Your task to perform on an android device: allow cookies in the chrome app Image 0: 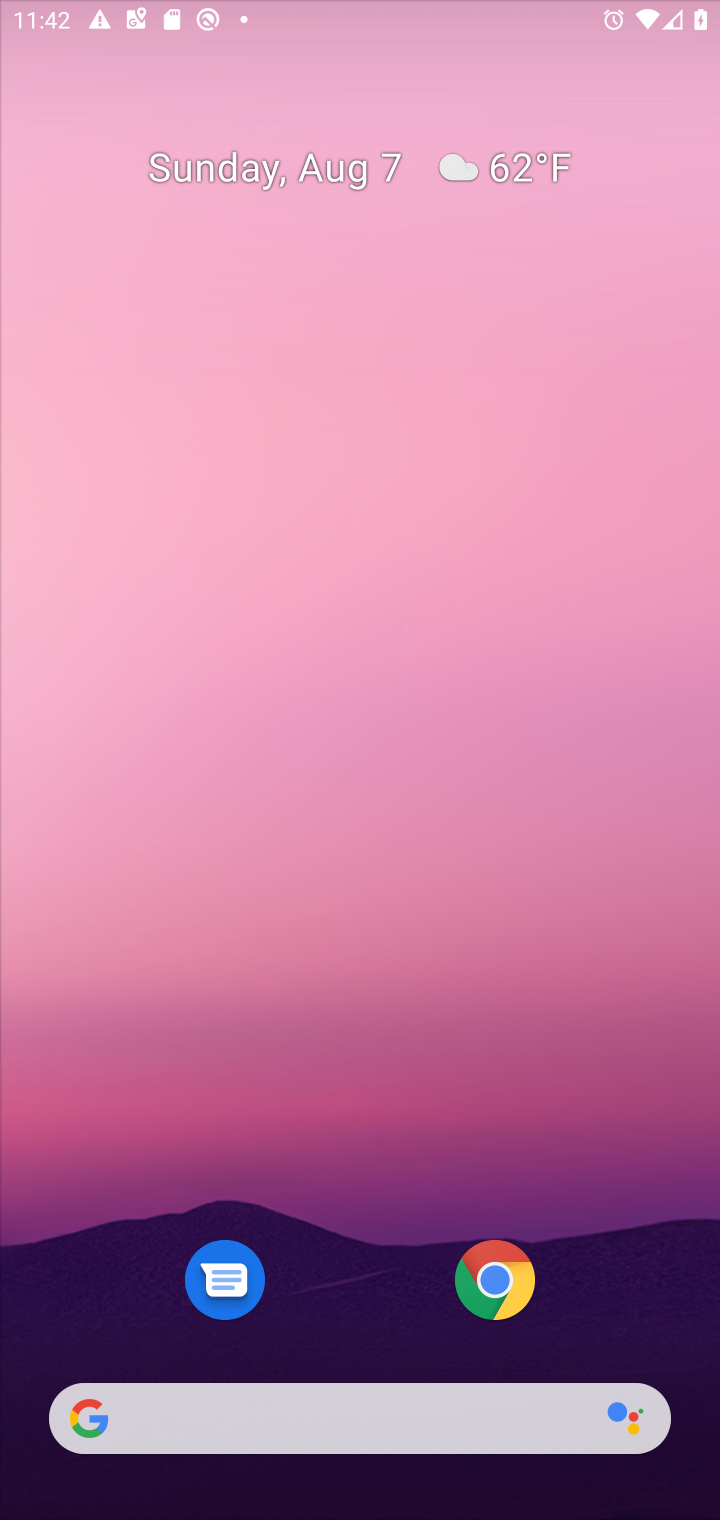
Step 0: press home button
Your task to perform on an android device: allow cookies in the chrome app Image 1: 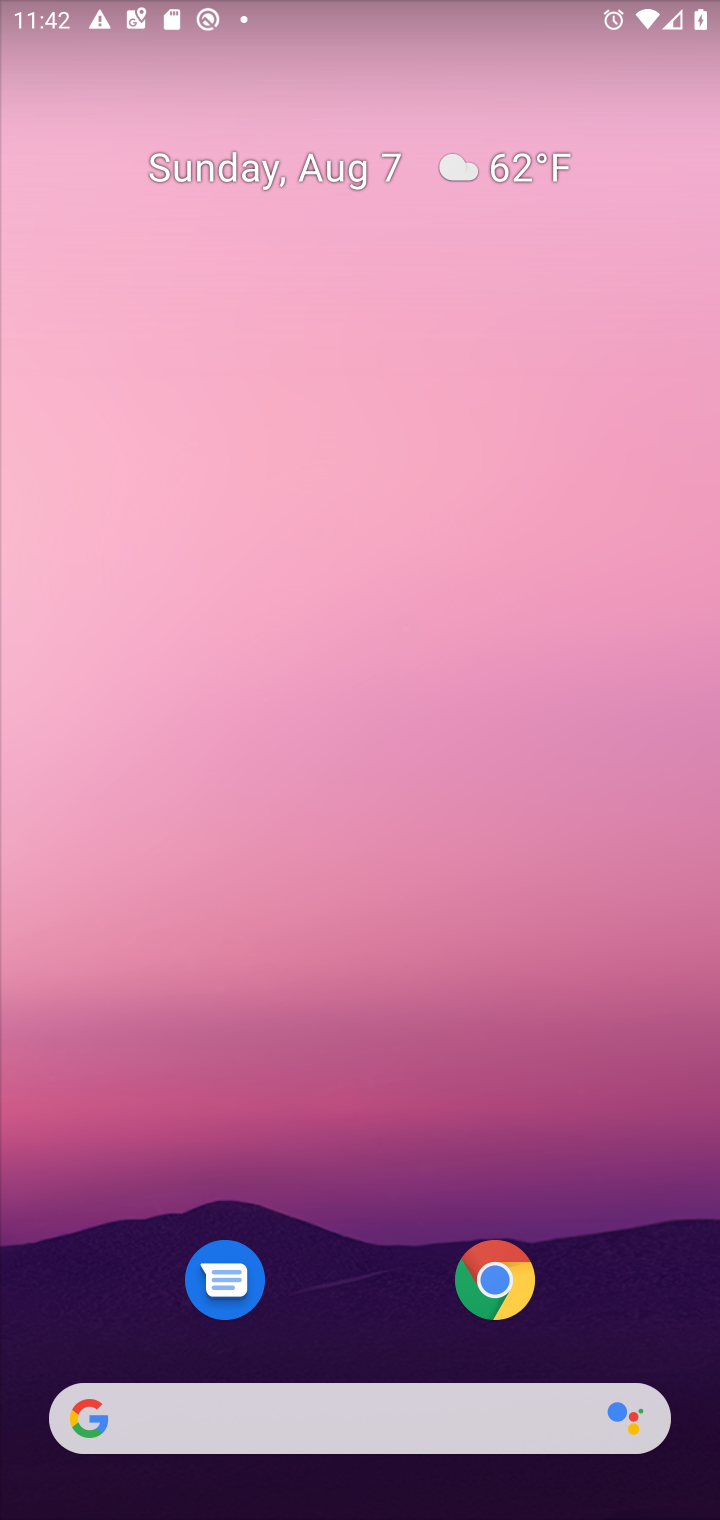
Step 1: click (498, 1287)
Your task to perform on an android device: allow cookies in the chrome app Image 2: 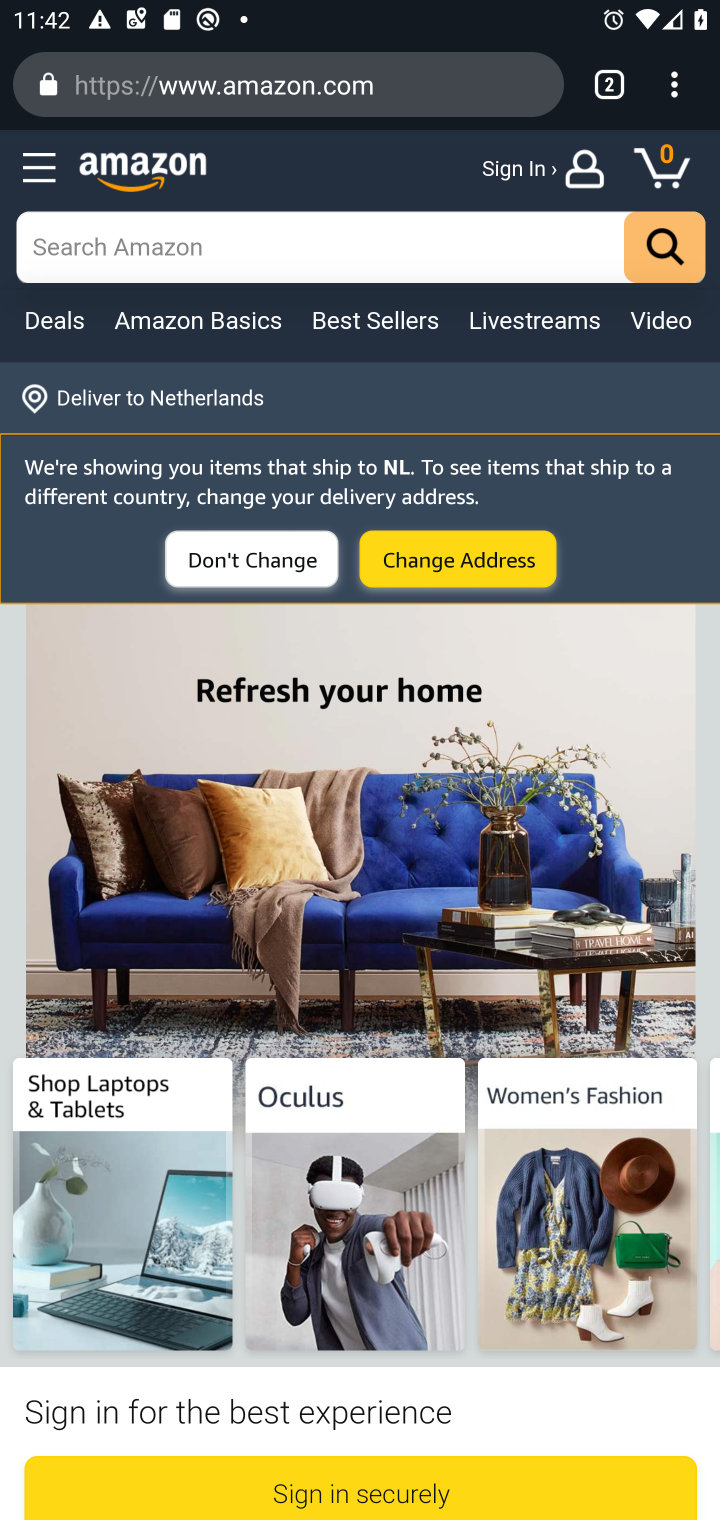
Step 2: click (680, 105)
Your task to perform on an android device: allow cookies in the chrome app Image 3: 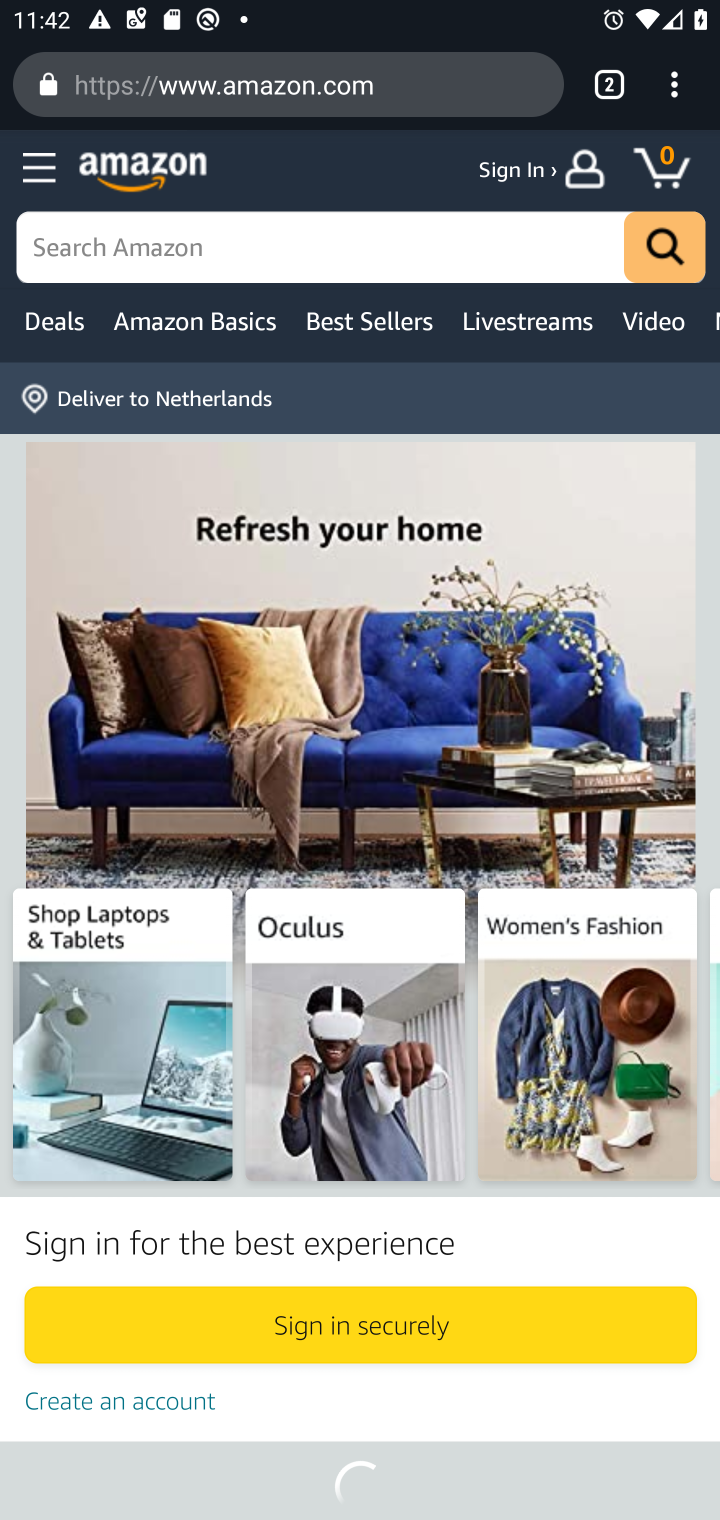
Step 3: drag from (683, 98) to (548, 1097)
Your task to perform on an android device: allow cookies in the chrome app Image 4: 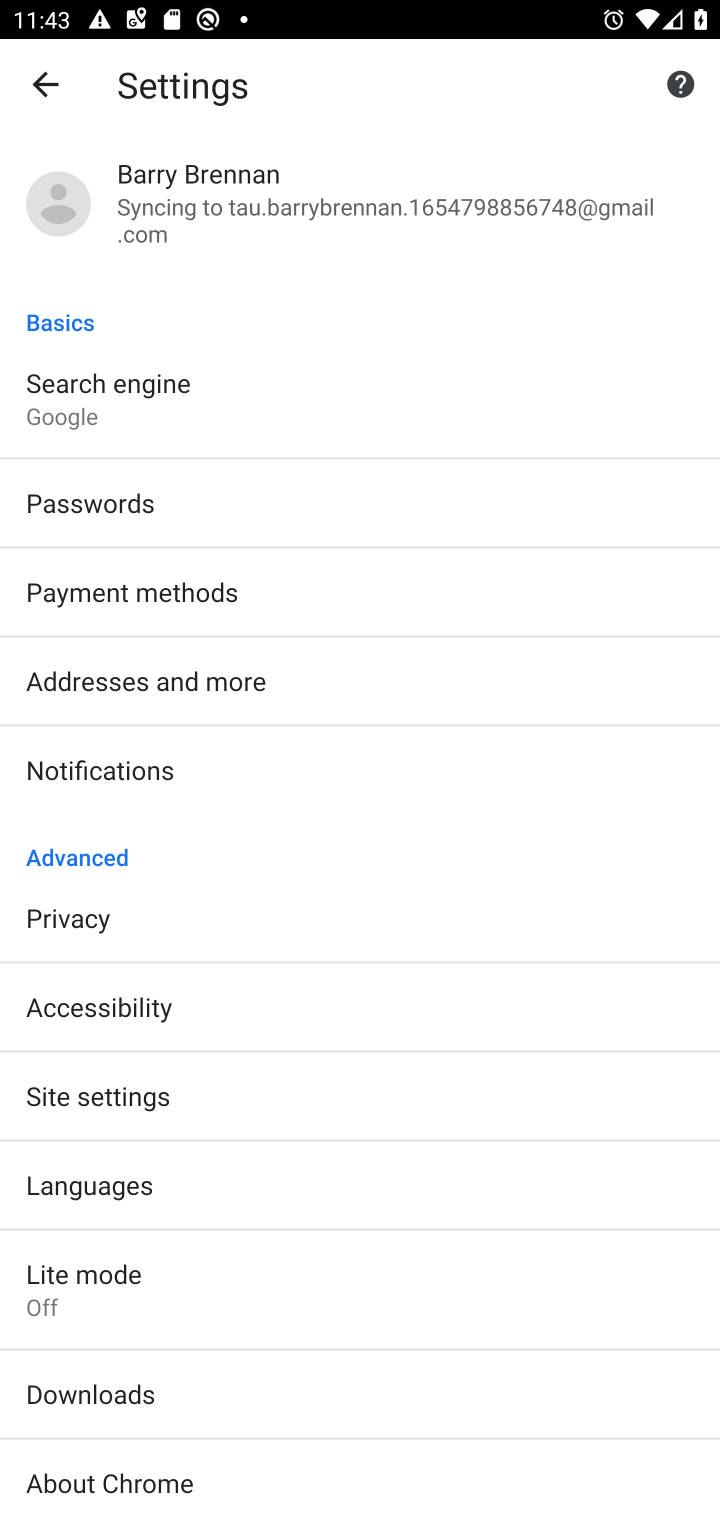
Step 4: click (116, 1103)
Your task to perform on an android device: allow cookies in the chrome app Image 5: 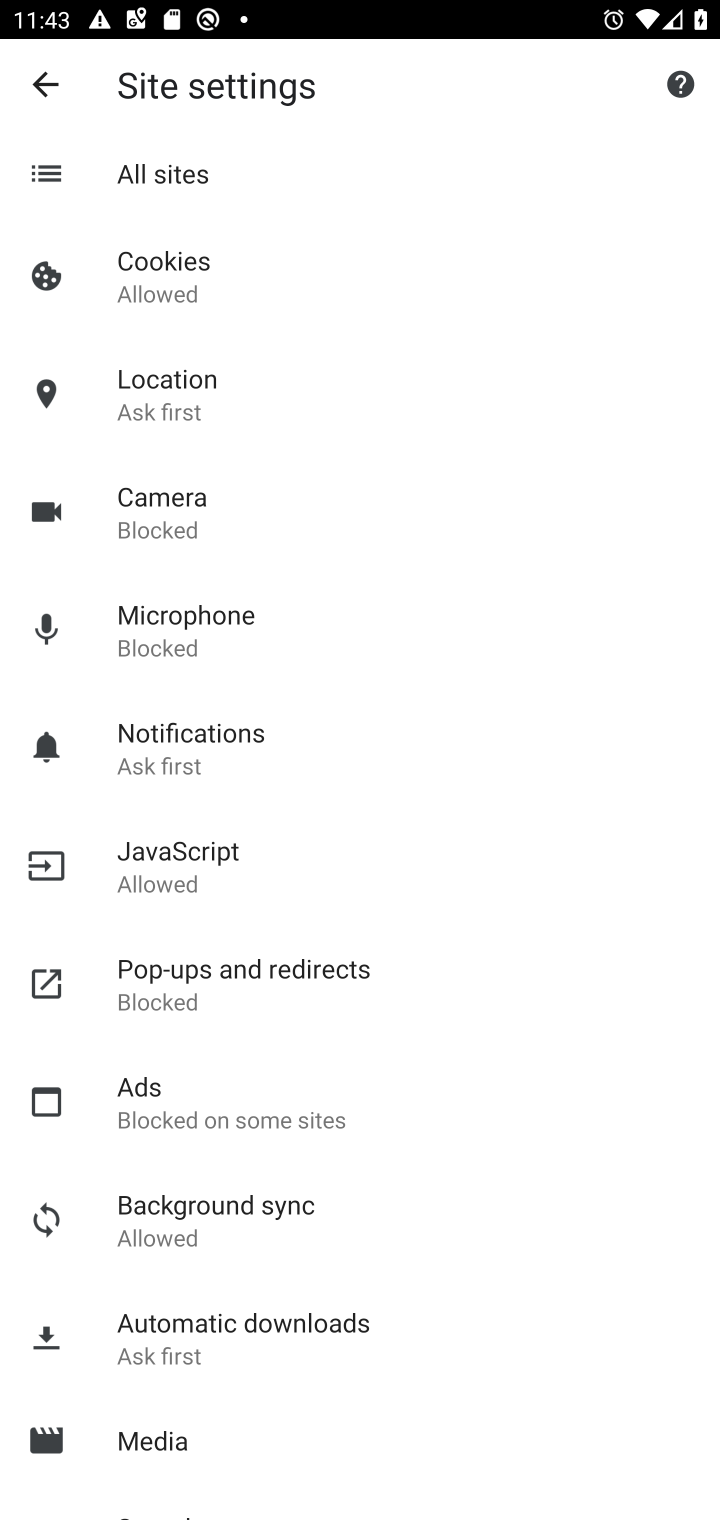
Step 5: click (170, 256)
Your task to perform on an android device: allow cookies in the chrome app Image 6: 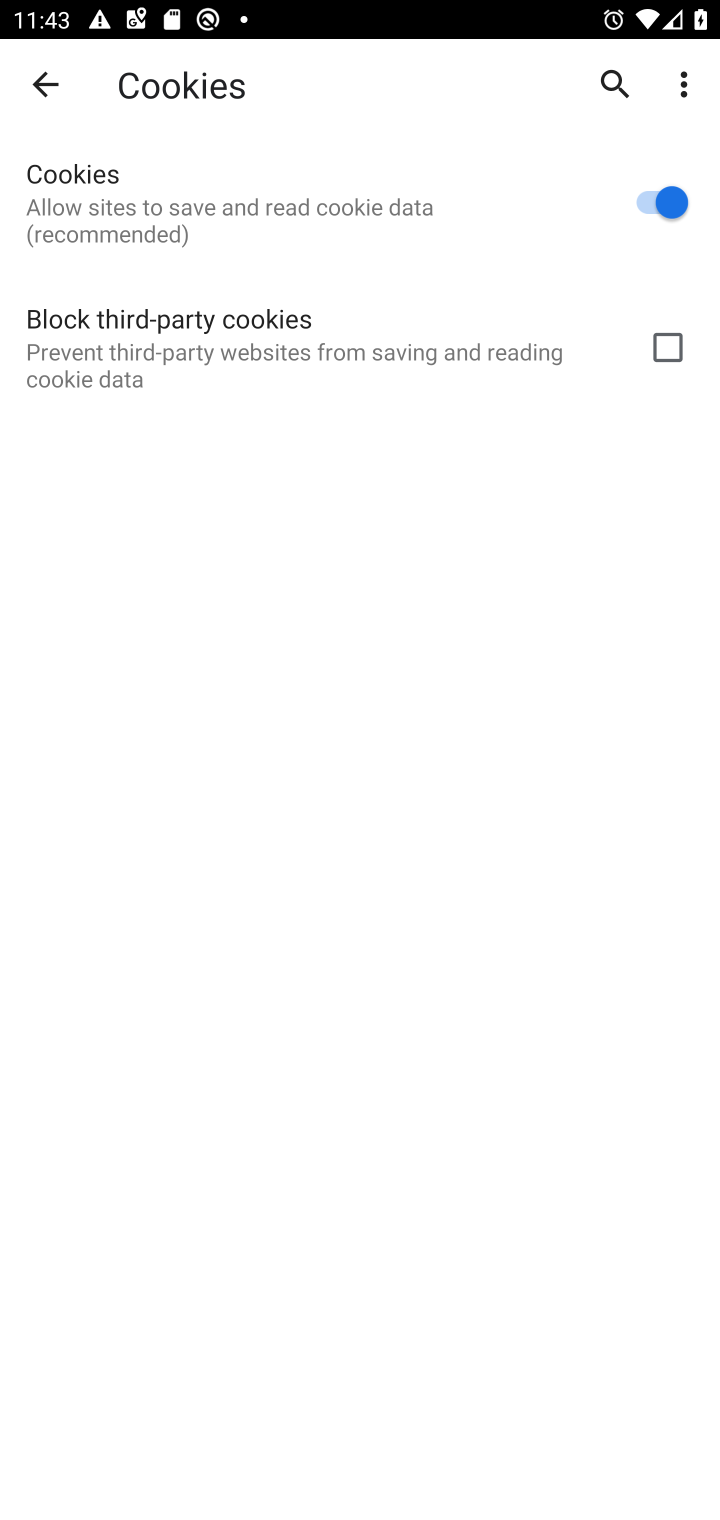
Step 6: task complete